Your task to perform on an android device: Open network settings Image 0: 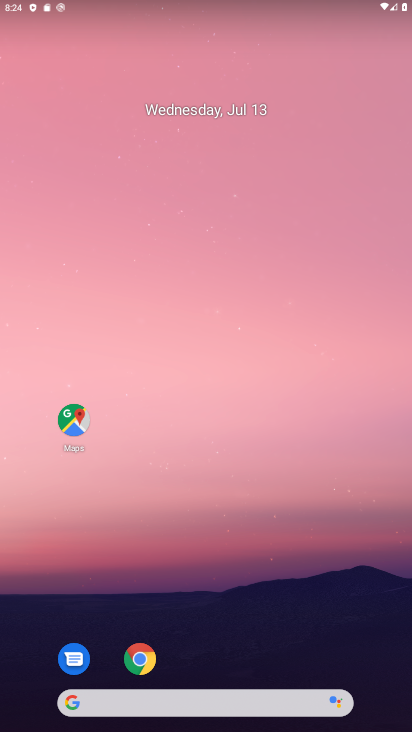
Step 0: drag from (28, 653) to (263, 81)
Your task to perform on an android device: Open network settings Image 1: 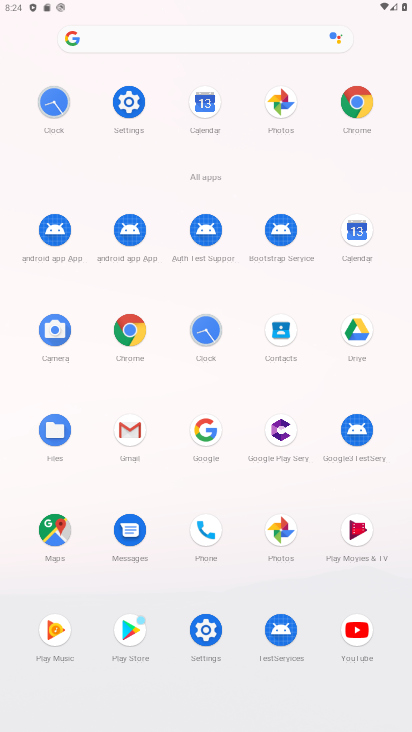
Step 1: click (133, 106)
Your task to perform on an android device: Open network settings Image 2: 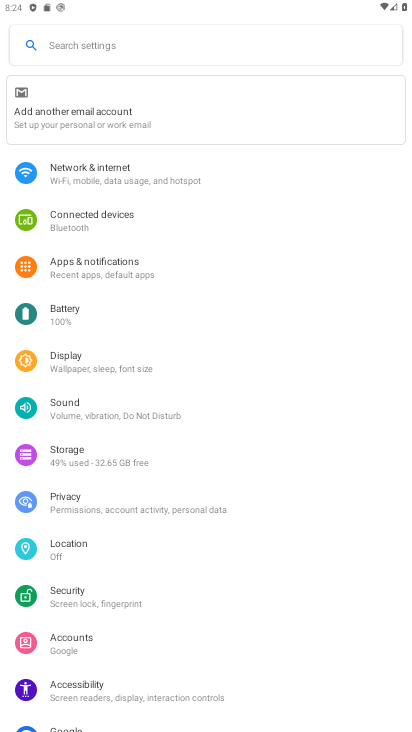
Step 2: click (114, 174)
Your task to perform on an android device: Open network settings Image 3: 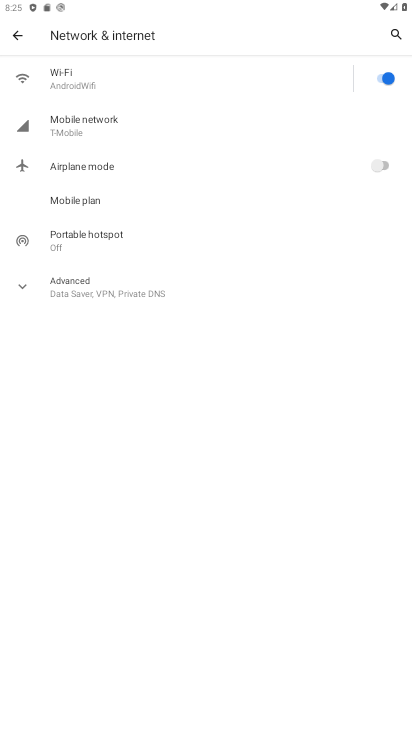
Step 3: click (124, 131)
Your task to perform on an android device: Open network settings Image 4: 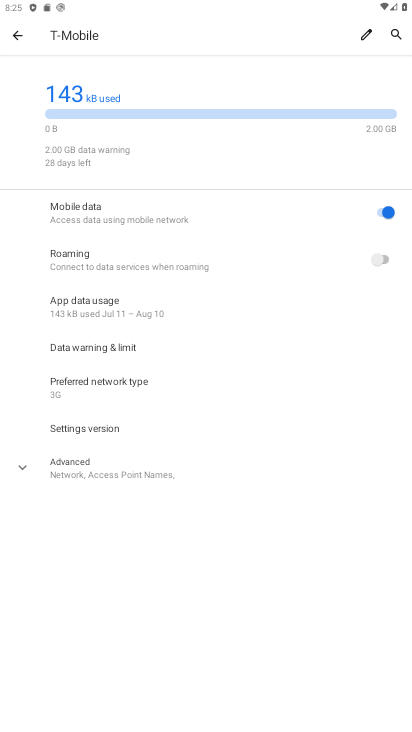
Step 4: task complete